Your task to perform on an android device: toggle wifi Image 0: 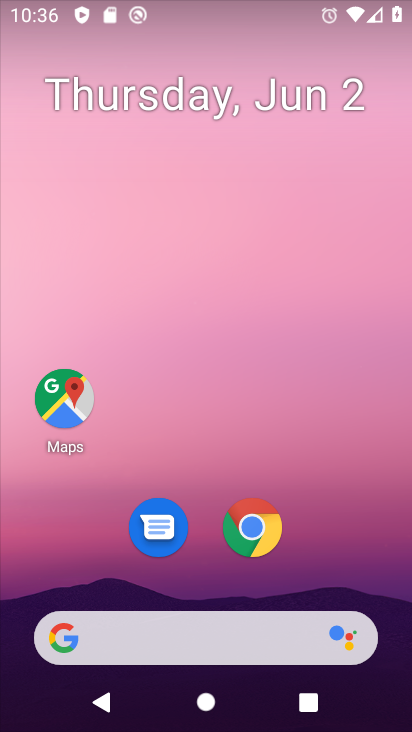
Step 0: press home button
Your task to perform on an android device: toggle wifi Image 1: 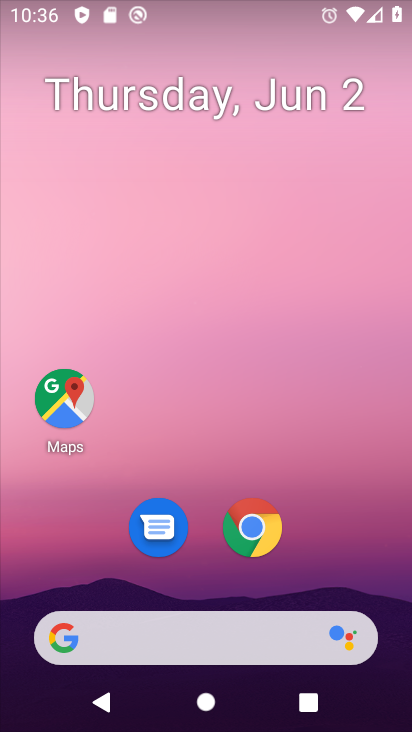
Step 1: drag from (195, 626) to (139, 128)
Your task to perform on an android device: toggle wifi Image 2: 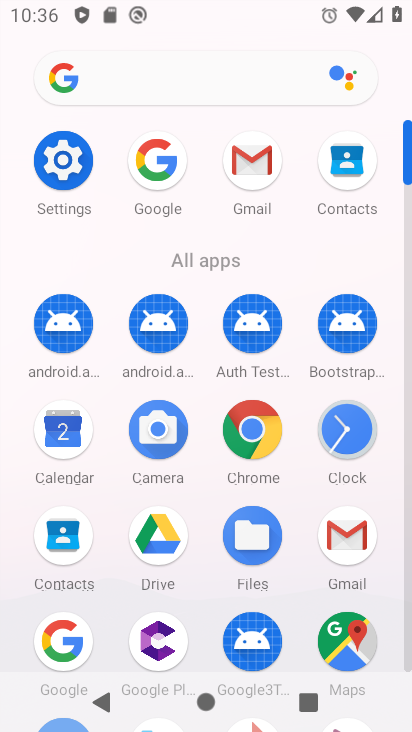
Step 2: click (65, 172)
Your task to perform on an android device: toggle wifi Image 3: 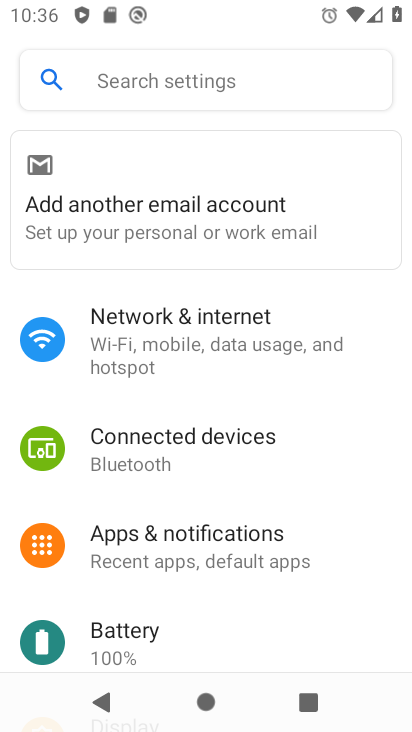
Step 3: click (167, 333)
Your task to perform on an android device: toggle wifi Image 4: 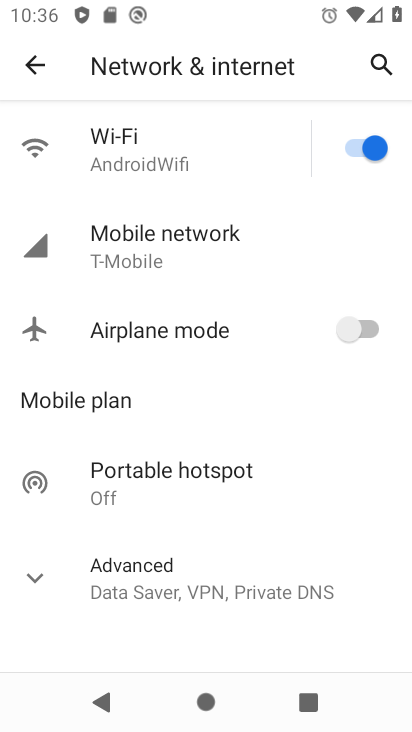
Step 4: click (364, 152)
Your task to perform on an android device: toggle wifi Image 5: 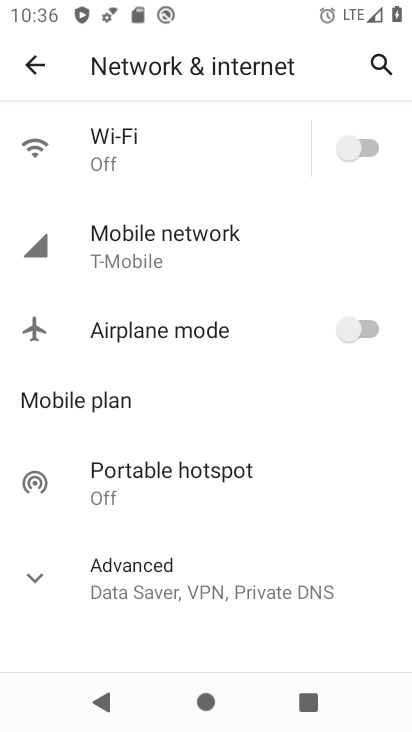
Step 5: task complete